Your task to perform on an android device: Go to sound settings Image 0: 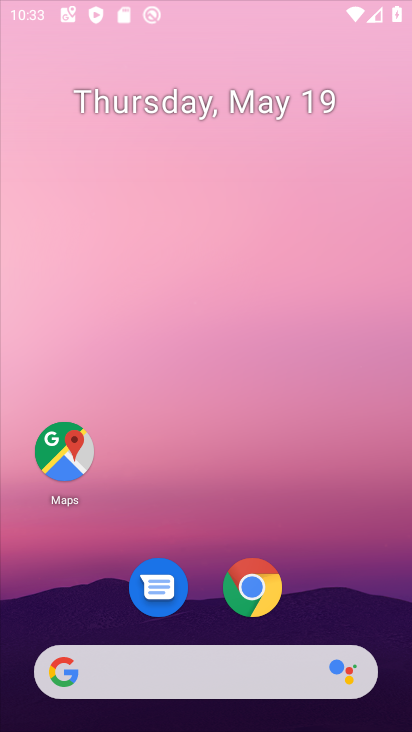
Step 0: drag from (350, 605) to (336, 117)
Your task to perform on an android device: Go to sound settings Image 1: 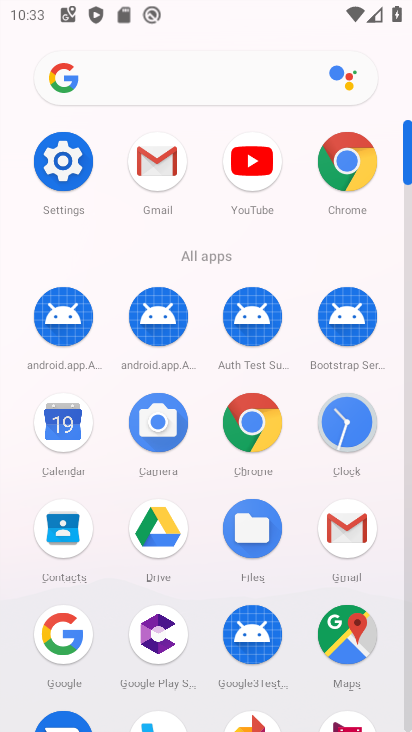
Step 1: click (53, 171)
Your task to perform on an android device: Go to sound settings Image 2: 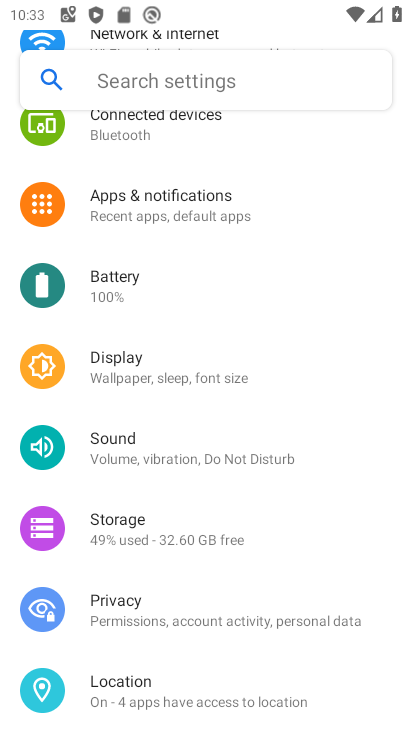
Step 2: click (229, 443)
Your task to perform on an android device: Go to sound settings Image 3: 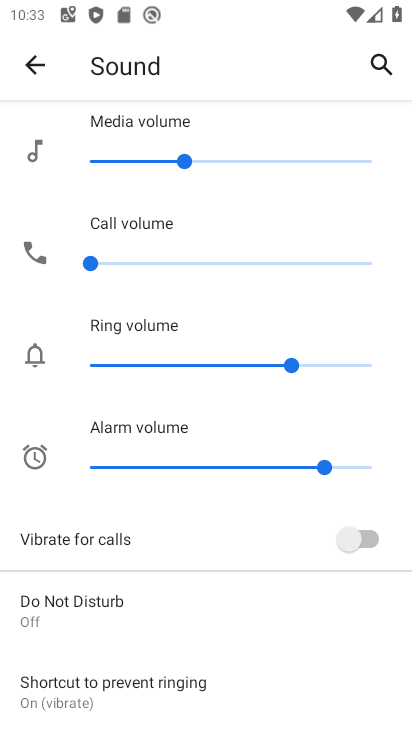
Step 3: task complete